Your task to perform on an android device: Turn off the flashlight Image 0: 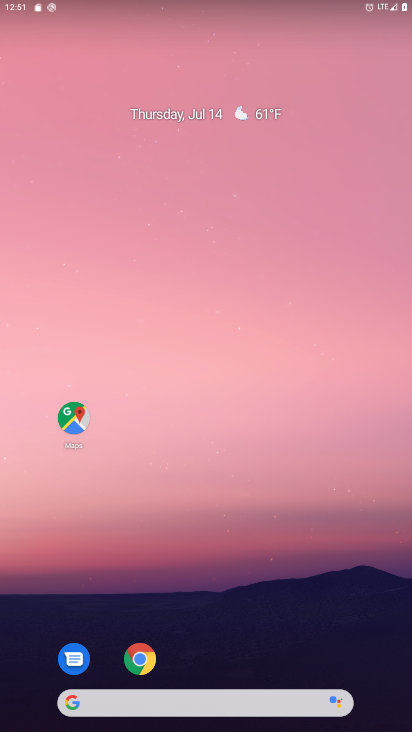
Step 0: drag from (214, 661) to (215, 42)
Your task to perform on an android device: Turn off the flashlight Image 1: 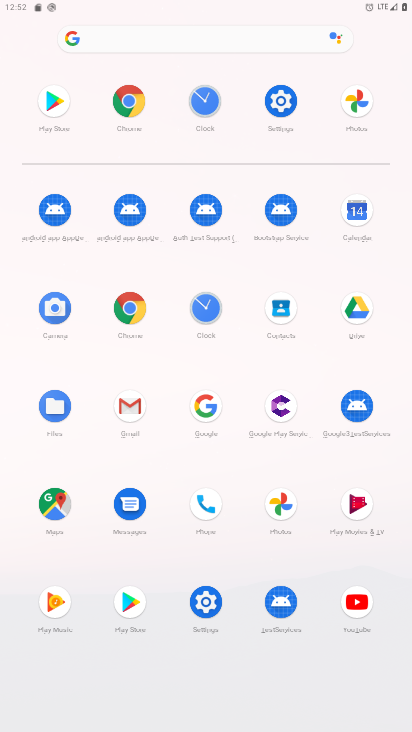
Step 1: click (282, 93)
Your task to perform on an android device: Turn off the flashlight Image 2: 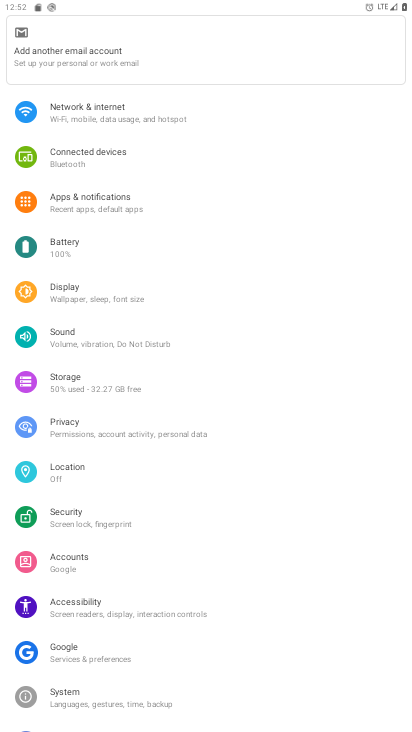
Step 2: drag from (116, 116) to (84, 583)
Your task to perform on an android device: Turn off the flashlight Image 3: 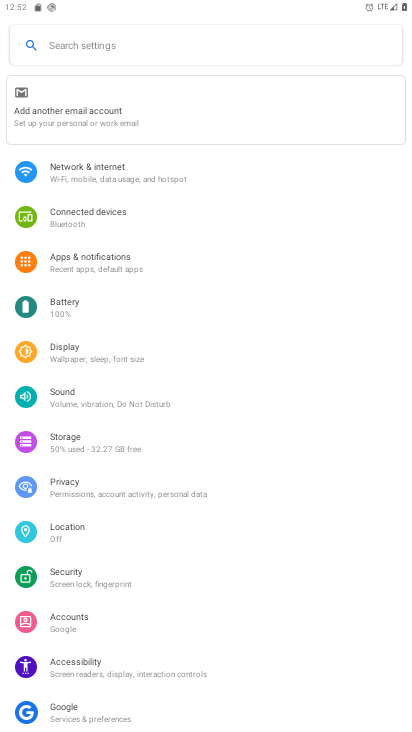
Step 3: click (90, 37)
Your task to perform on an android device: Turn off the flashlight Image 4: 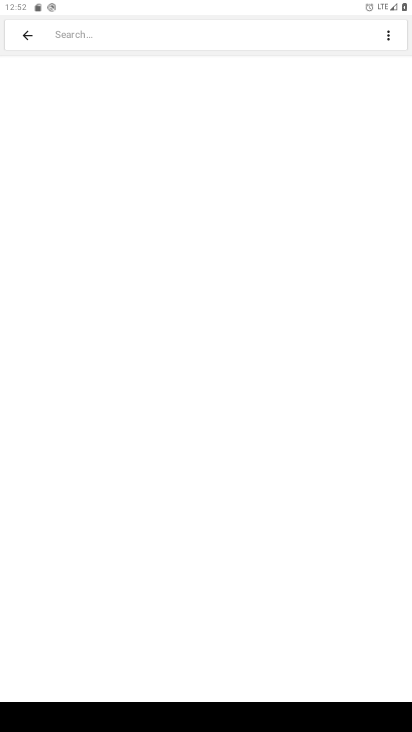
Step 4: type "flashlight"
Your task to perform on an android device: Turn off the flashlight Image 5: 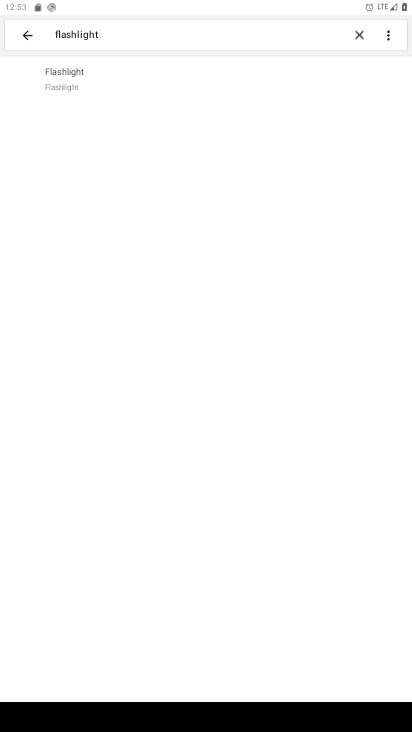
Step 5: click (74, 75)
Your task to perform on an android device: Turn off the flashlight Image 6: 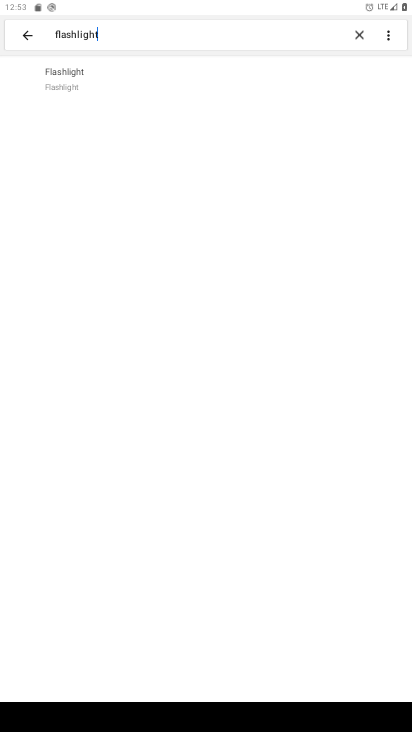
Step 6: click (89, 76)
Your task to perform on an android device: Turn off the flashlight Image 7: 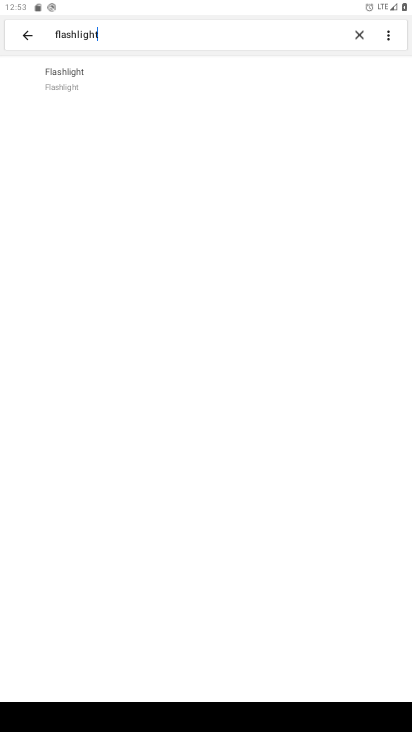
Step 7: task complete